Your task to perform on an android device: open a bookmark in the chrome app Image 0: 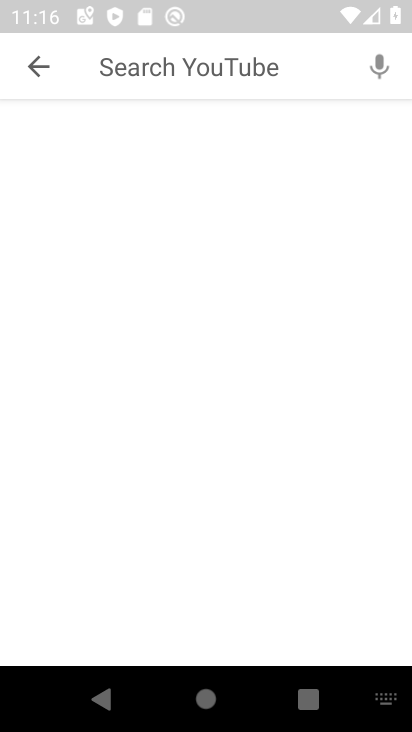
Step 0: press home button
Your task to perform on an android device: open a bookmark in the chrome app Image 1: 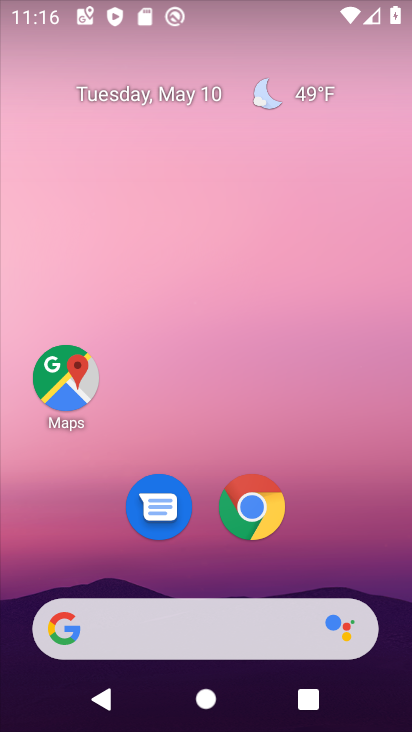
Step 1: click (245, 507)
Your task to perform on an android device: open a bookmark in the chrome app Image 2: 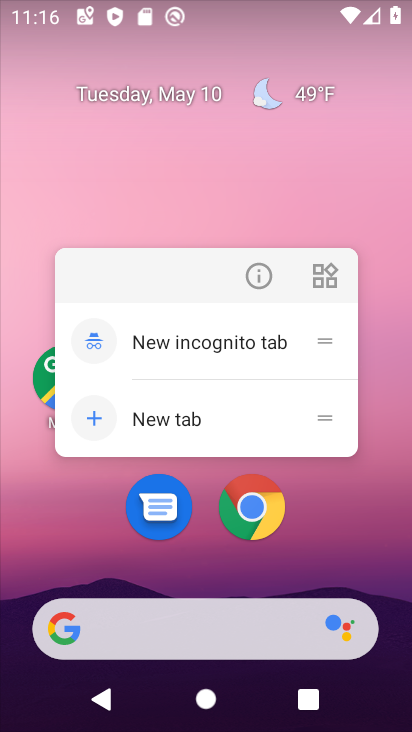
Step 2: click (247, 508)
Your task to perform on an android device: open a bookmark in the chrome app Image 3: 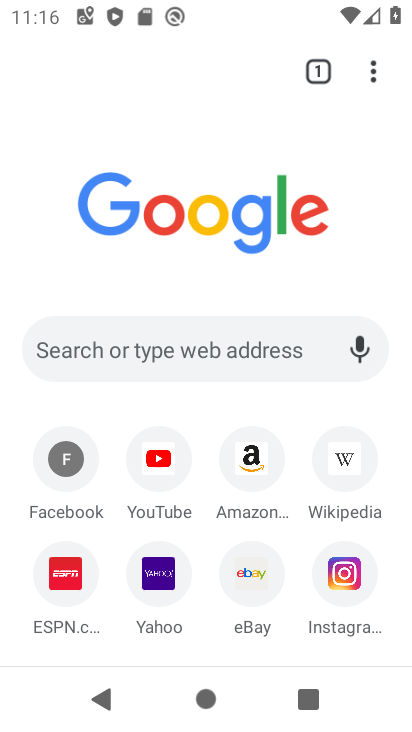
Step 3: click (364, 68)
Your task to perform on an android device: open a bookmark in the chrome app Image 4: 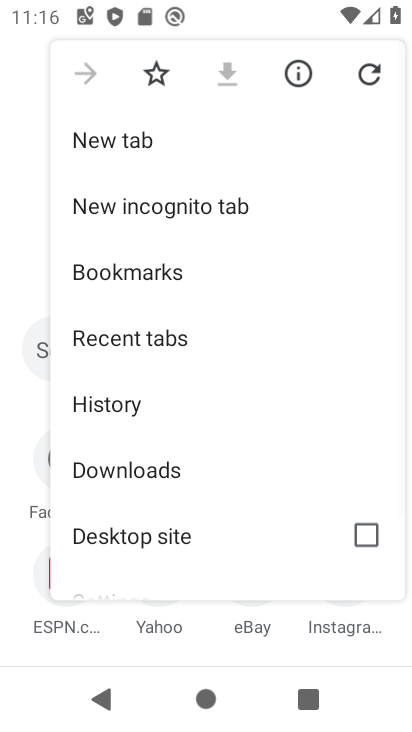
Step 4: click (130, 289)
Your task to perform on an android device: open a bookmark in the chrome app Image 5: 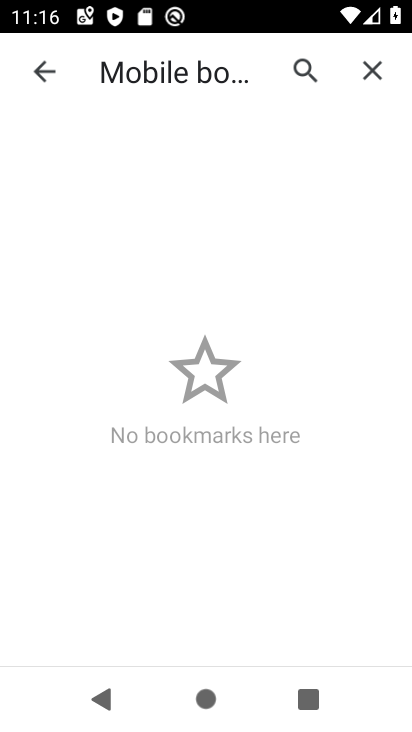
Step 5: task complete